Your task to perform on an android device: install app "Skype" Image 0: 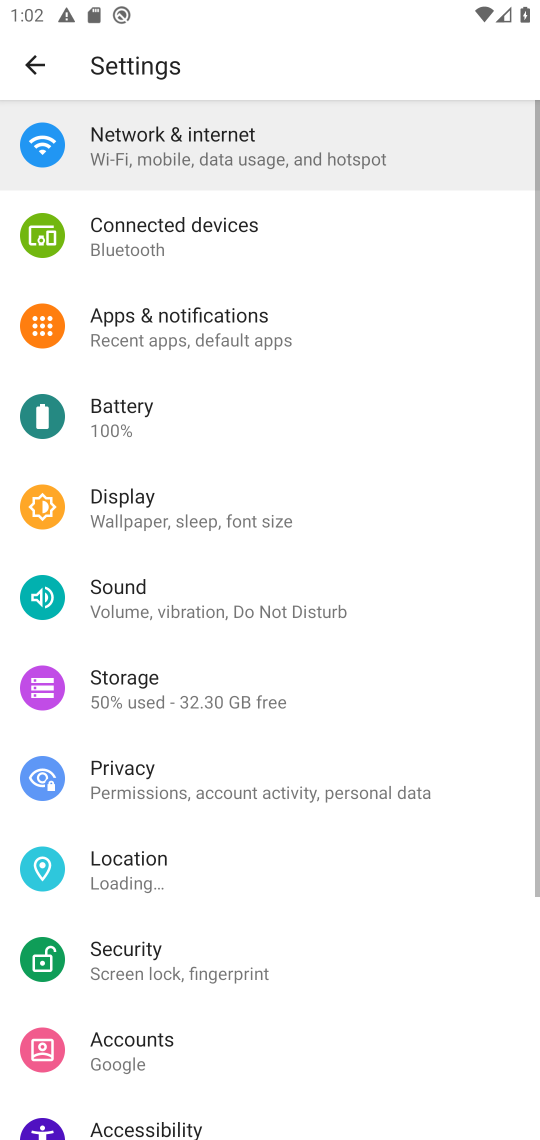
Step 0: press home button
Your task to perform on an android device: install app "Skype" Image 1: 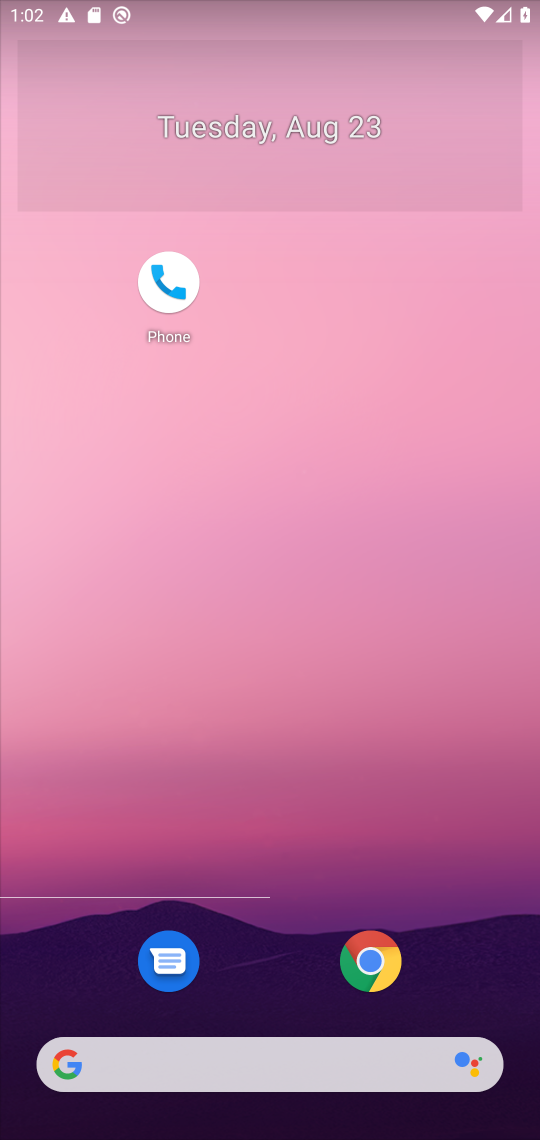
Step 1: drag from (264, 976) to (263, 156)
Your task to perform on an android device: install app "Skype" Image 2: 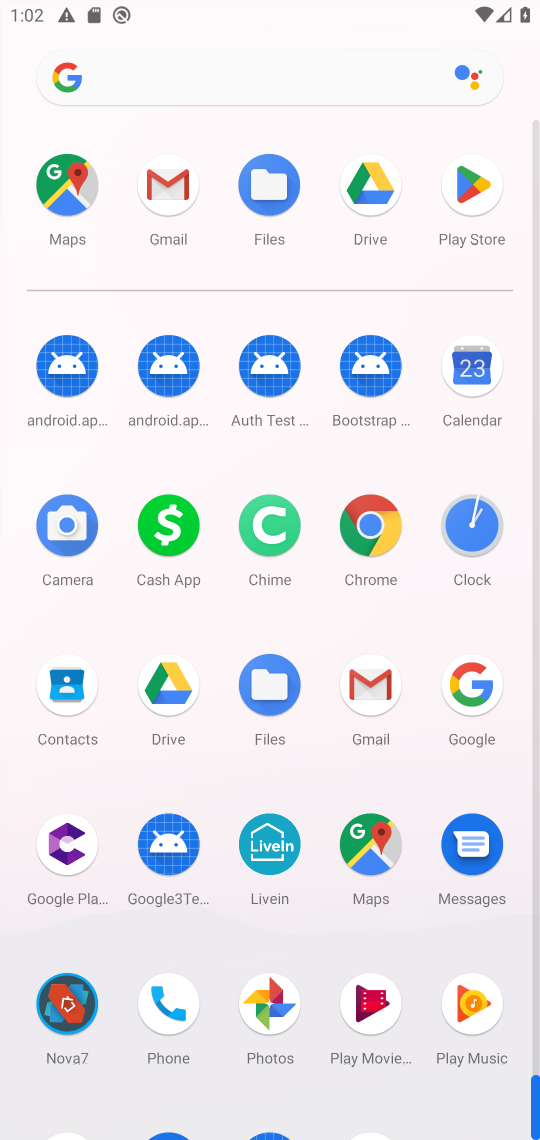
Step 2: click (477, 225)
Your task to perform on an android device: install app "Skype" Image 3: 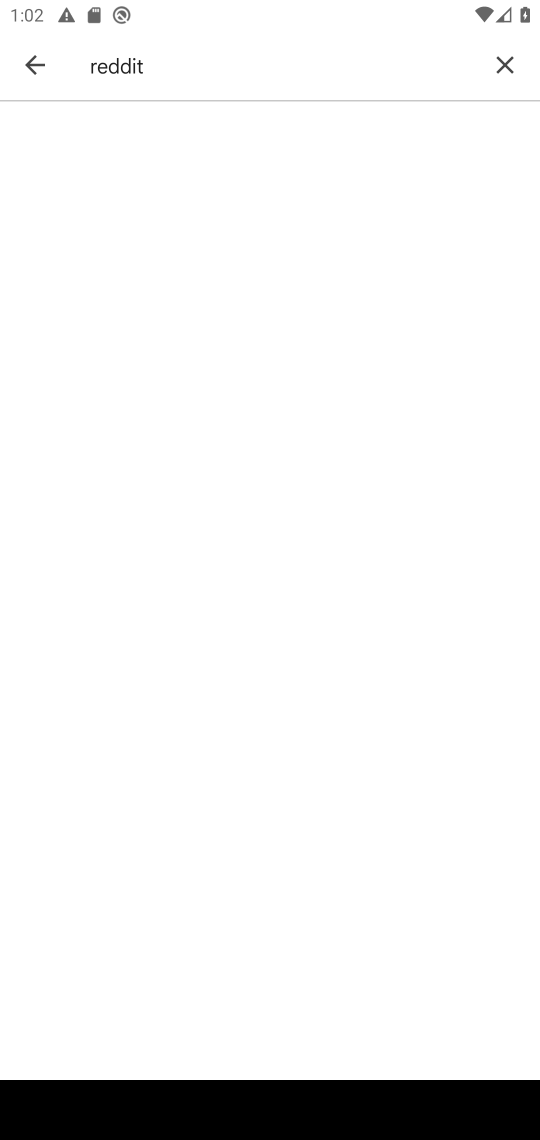
Step 3: click (518, 80)
Your task to perform on an android device: install app "Skype" Image 4: 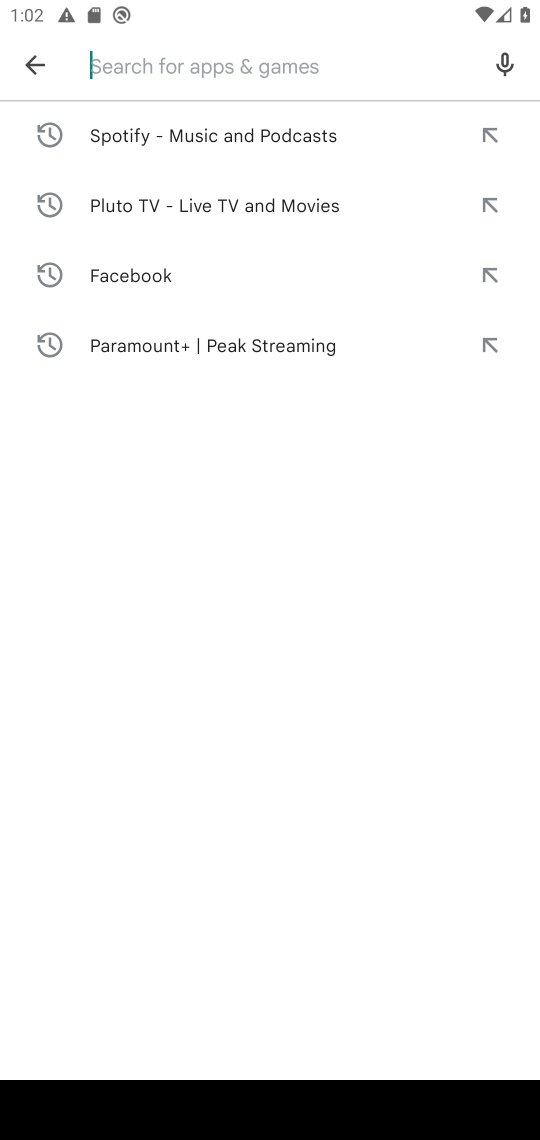
Step 4: type "skype"
Your task to perform on an android device: install app "Skype" Image 5: 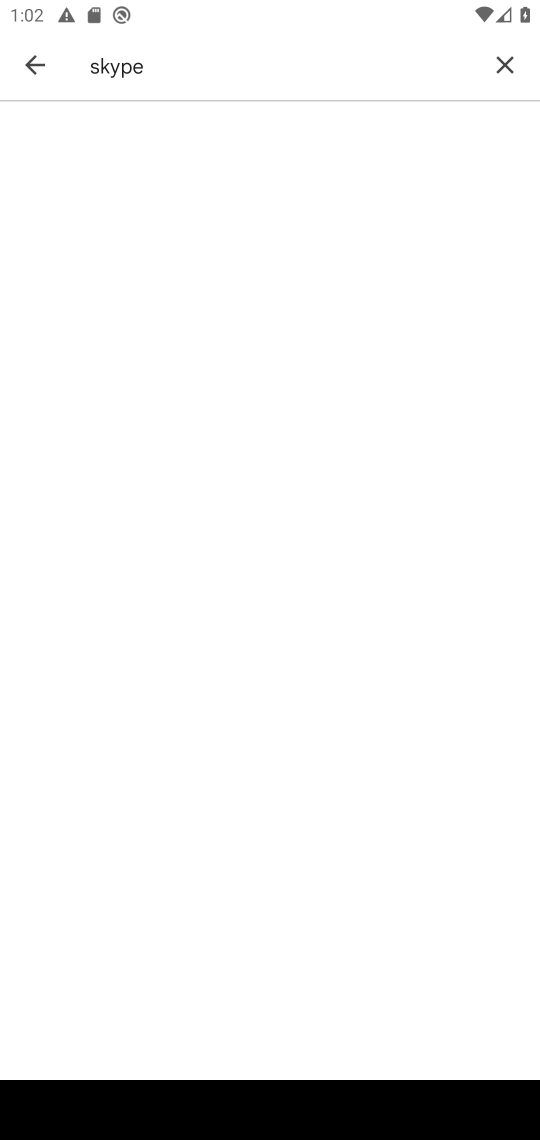
Step 5: task complete